Your task to perform on an android device: Is it going to rain this weekend? Image 0: 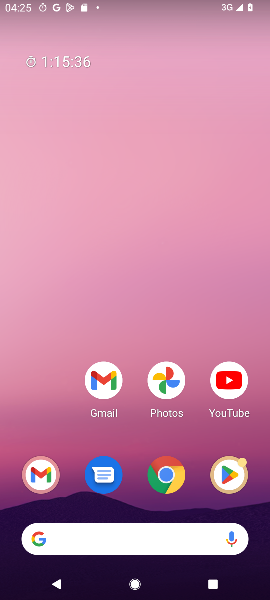
Step 0: press home button
Your task to perform on an android device: Is it going to rain this weekend? Image 1: 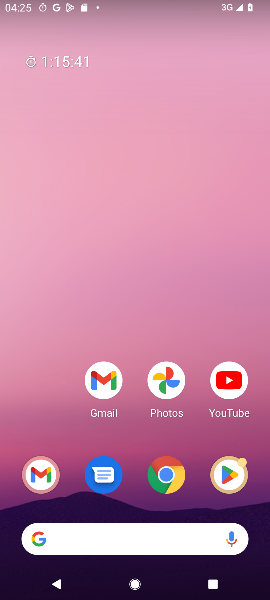
Step 1: click (128, 535)
Your task to perform on an android device: Is it going to rain this weekend? Image 2: 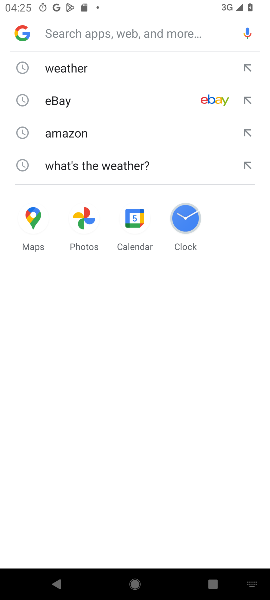
Step 2: click (84, 71)
Your task to perform on an android device: Is it going to rain this weekend? Image 3: 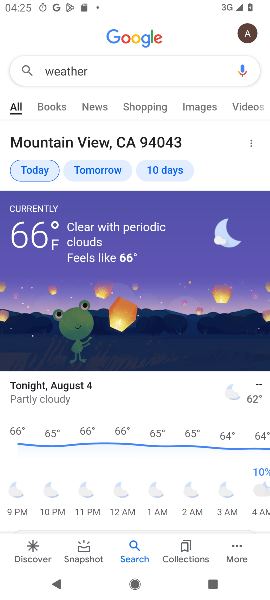
Step 3: click (176, 165)
Your task to perform on an android device: Is it going to rain this weekend? Image 4: 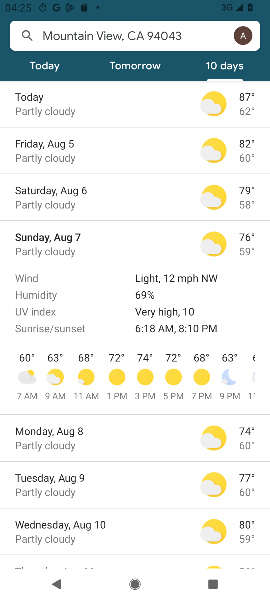
Step 4: task complete